Your task to perform on an android device: Go to ESPN.com Image 0: 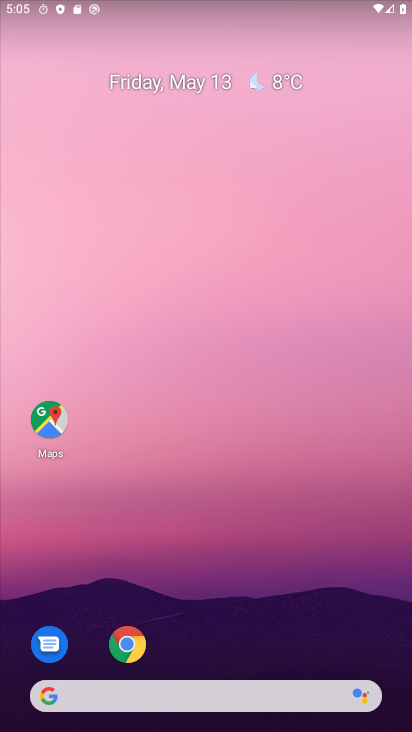
Step 0: click (132, 650)
Your task to perform on an android device: Go to ESPN.com Image 1: 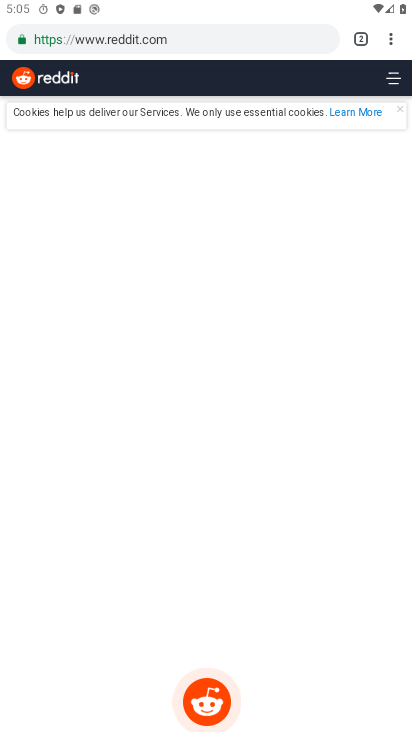
Step 1: click (368, 39)
Your task to perform on an android device: Go to ESPN.com Image 2: 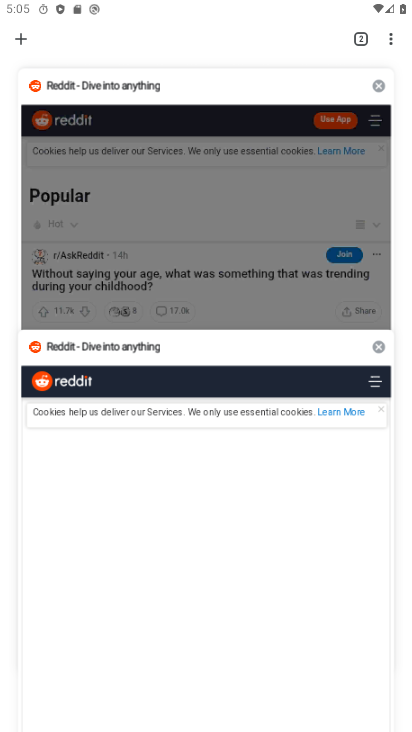
Step 2: click (12, 38)
Your task to perform on an android device: Go to ESPN.com Image 3: 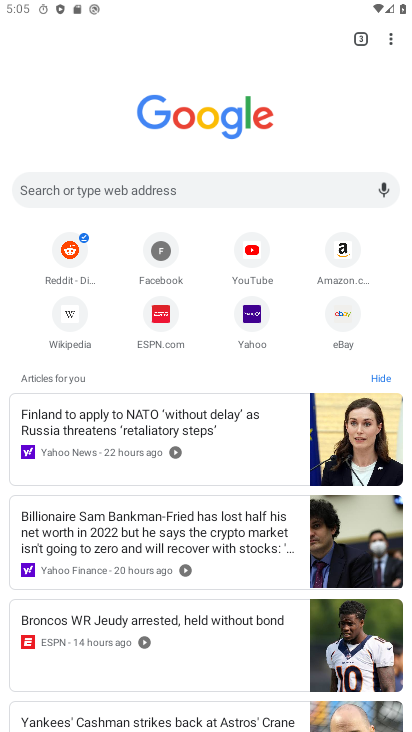
Step 3: click (173, 307)
Your task to perform on an android device: Go to ESPN.com Image 4: 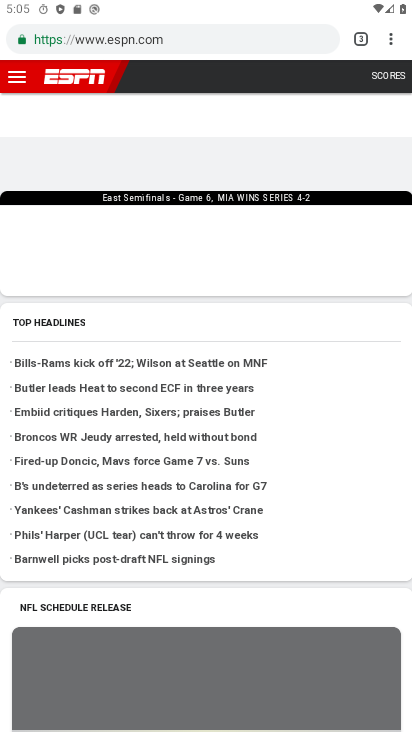
Step 4: task complete